Your task to perform on an android device: Go to wifi settings Image 0: 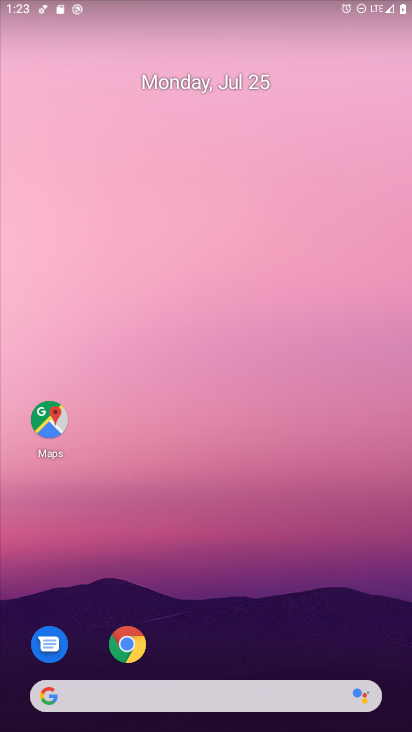
Step 0: drag from (322, 608) to (279, 22)
Your task to perform on an android device: Go to wifi settings Image 1: 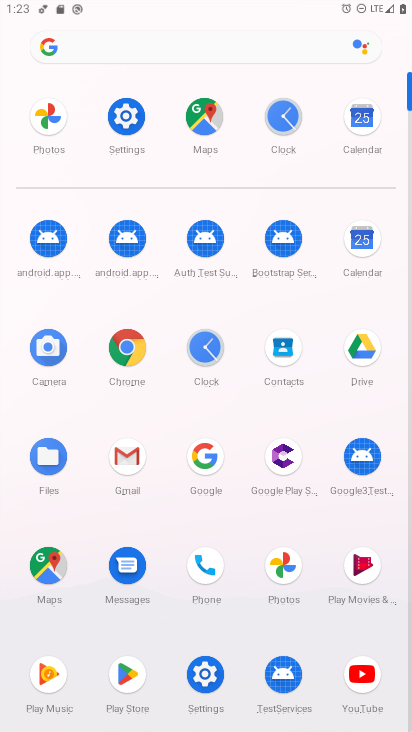
Step 1: click (126, 115)
Your task to perform on an android device: Go to wifi settings Image 2: 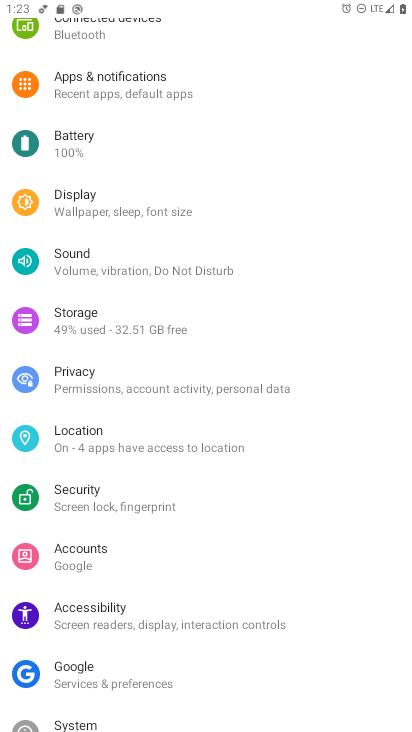
Step 2: drag from (133, 111) to (200, 350)
Your task to perform on an android device: Go to wifi settings Image 3: 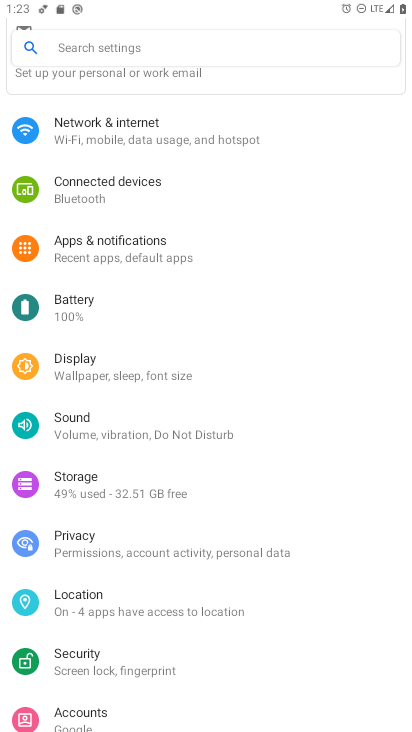
Step 3: click (149, 130)
Your task to perform on an android device: Go to wifi settings Image 4: 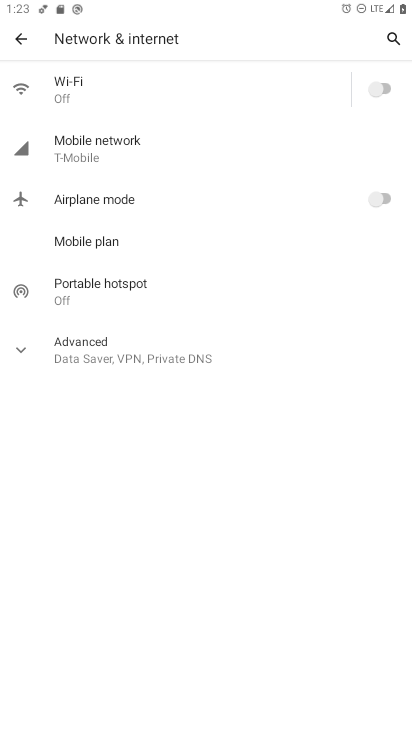
Step 4: click (94, 90)
Your task to perform on an android device: Go to wifi settings Image 5: 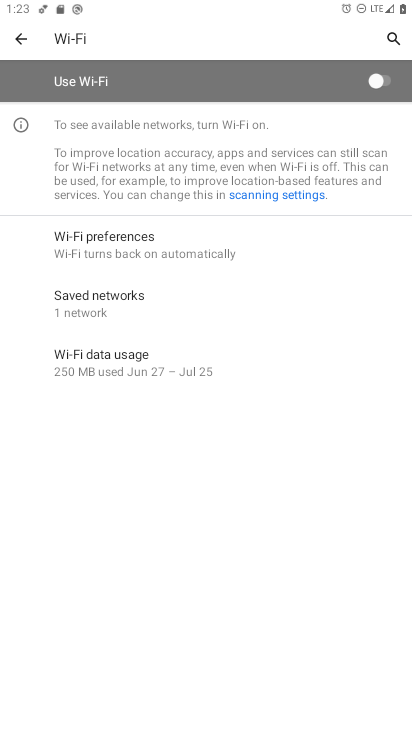
Step 5: task complete